Your task to perform on an android device: stop showing notifications on the lock screen Image 0: 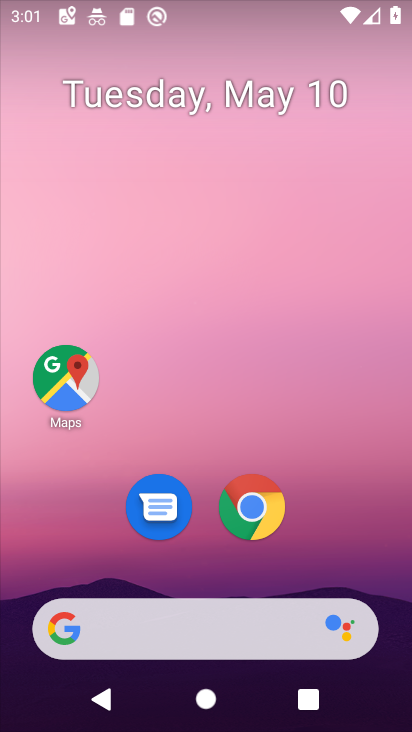
Step 0: drag from (204, 591) to (257, 187)
Your task to perform on an android device: stop showing notifications on the lock screen Image 1: 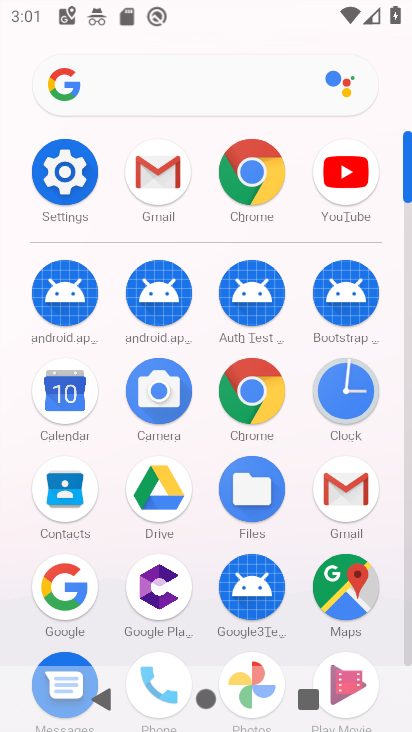
Step 1: click (70, 170)
Your task to perform on an android device: stop showing notifications on the lock screen Image 2: 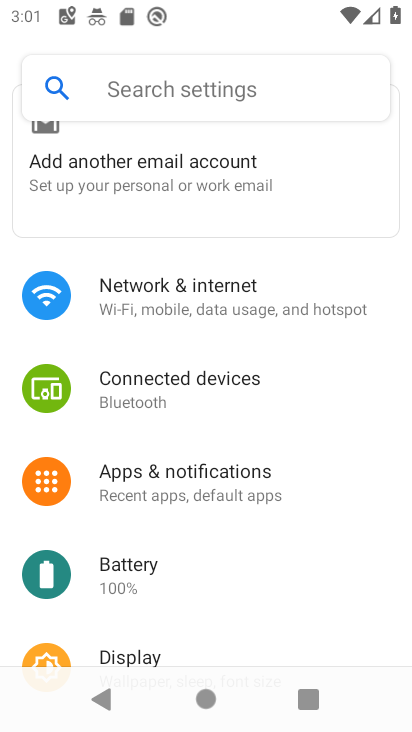
Step 2: click (193, 482)
Your task to perform on an android device: stop showing notifications on the lock screen Image 3: 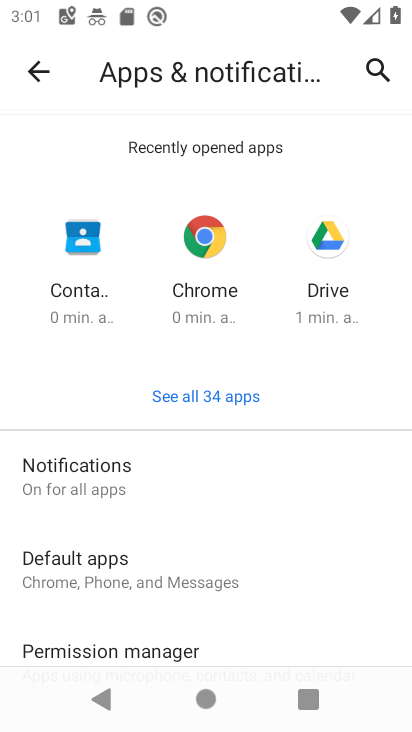
Step 3: click (97, 474)
Your task to perform on an android device: stop showing notifications on the lock screen Image 4: 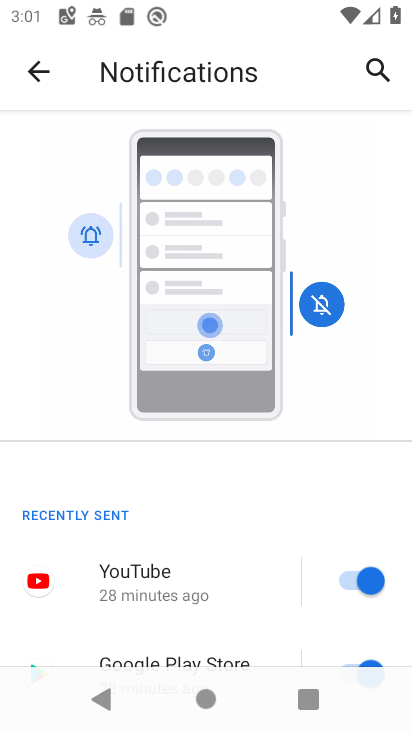
Step 4: drag from (174, 579) to (206, 204)
Your task to perform on an android device: stop showing notifications on the lock screen Image 5: 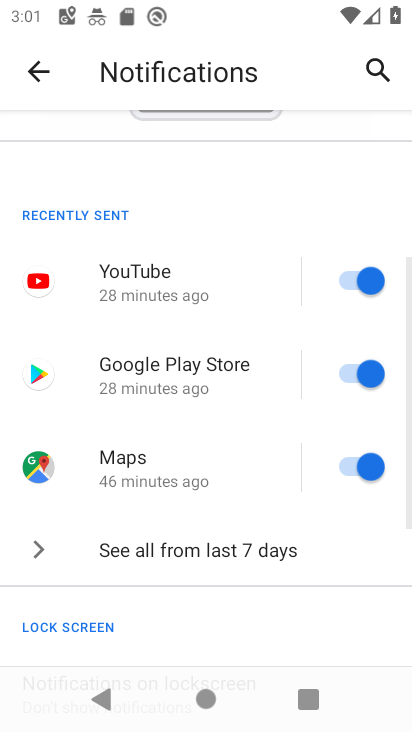
Step 5: drag from (187, 554) to (220, 192)
Your task to perform on an android device: stop showing notifications on the lock screen Image 6: 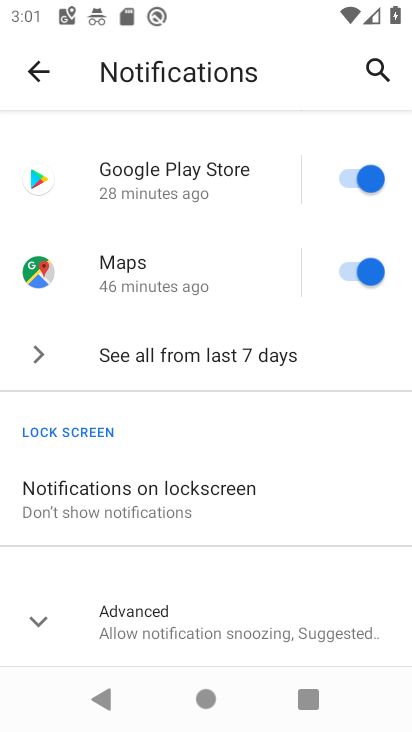
Step 6: click (136, 492)
Your task to perform on an android device: stop showing notifications on the lock screen Image 7: 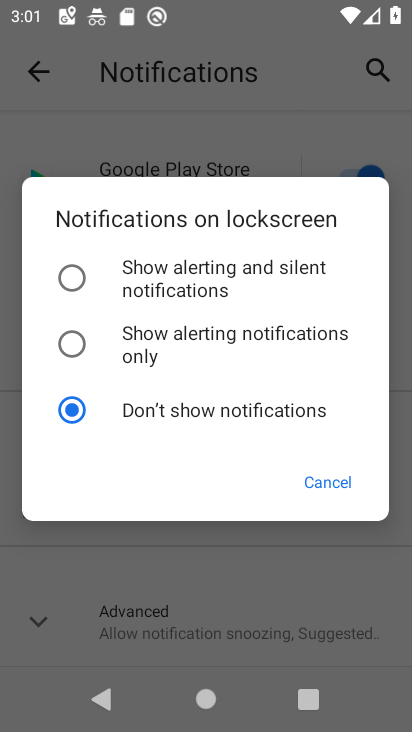
Step 7: task complete